Your task to perform on an android device: Open location settings Image 0: 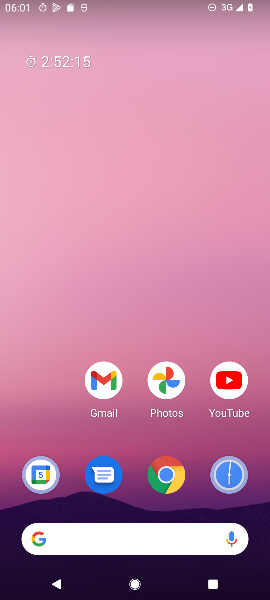
Step 0: press home button
Your task to perform on an android device: Open location settings Image 1: 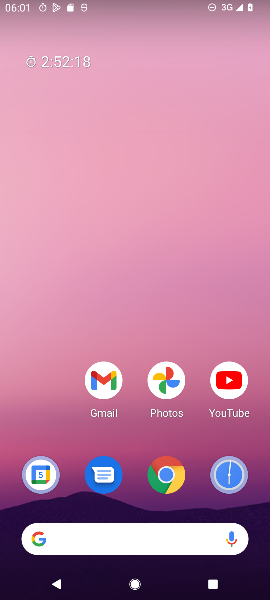
Step 1: drag from (67, 430) to (48, 175)
Your task to perform on an android device: Open location settings Image 2: 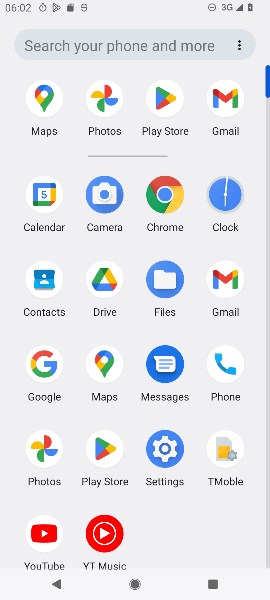
Step 2: click (165, 445)
Your task to perform on an android device: Open location settings Image 3: 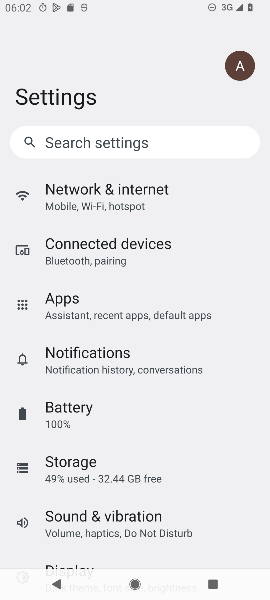
Step 3: task complete